Your task to perform on an android device: turn on the 24-hour format for clock Image 0: 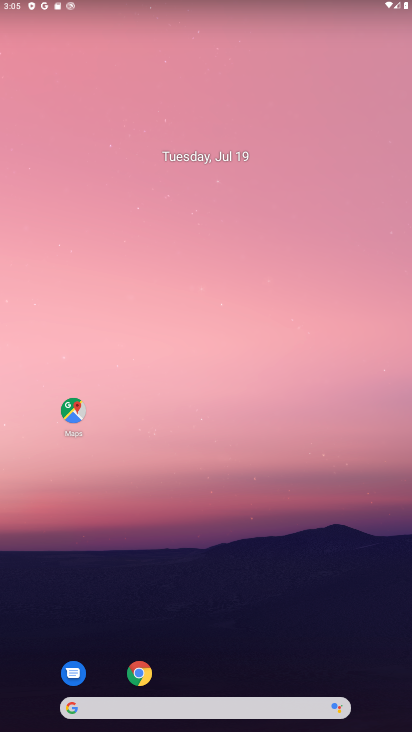
Step 0: press home button
Your task to perform on an android device: turn on the 24-hour format for clock Image 1: 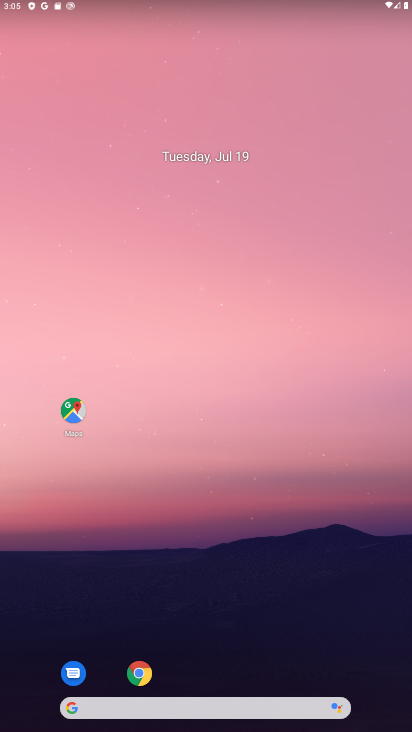
Step 1: drag from (210, 675) to (212, 2)
Your task to perform on an android device: turn on the 24-hour format for clock Image 2: 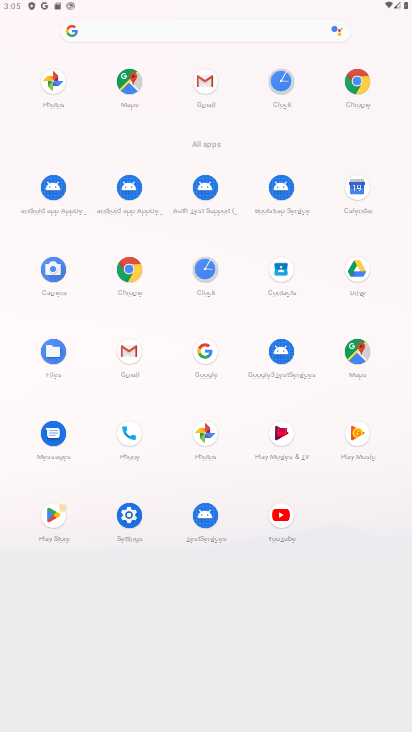
Step 2: click (284, 73)
Your task to perform on an android device: turn on the 24-hour format for clock Image 3: 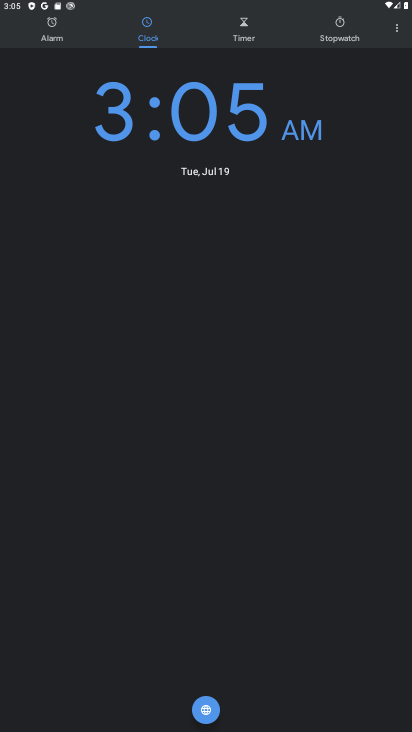
Step 3: click (390, 28)
Your task to perform on an android device: turn on the 24-hour format for clock Image 4: 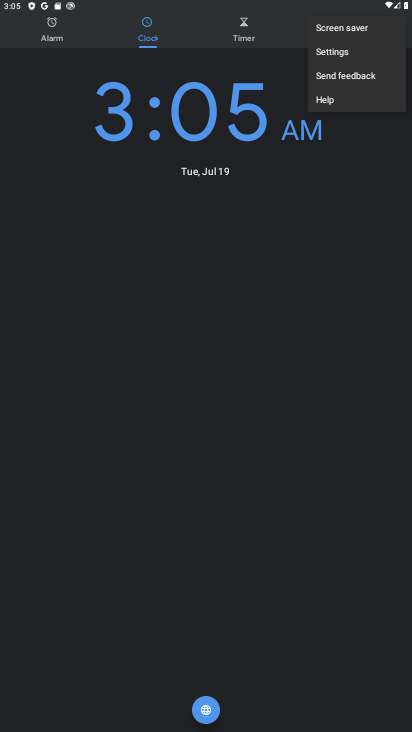
Step 4: click (348, 54)
Your task to perform on an android device: turn on the 24-hour format for clock Image 5: 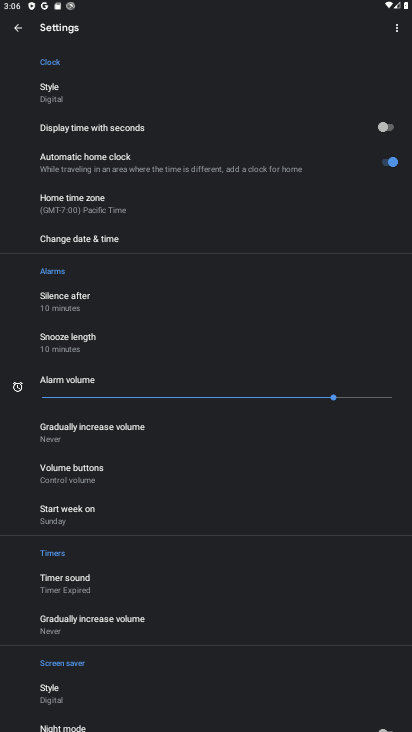
Step 5: click (113, 238)
Your task to perform on an android device: turn on the 24-hour format for clock Image 6: 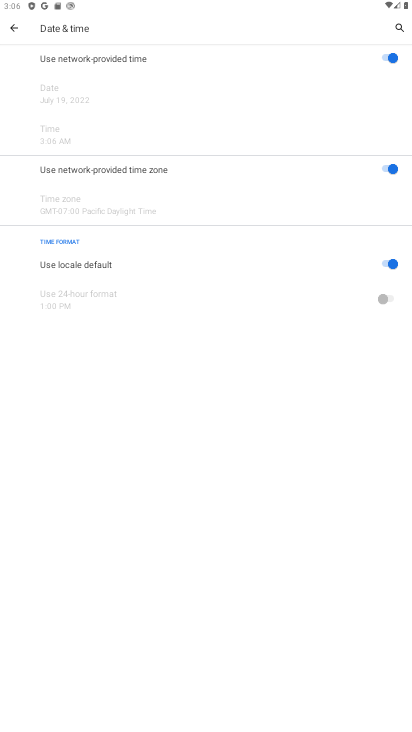
Step 6: click (385, 260)
Your task to perform on an android device: turn on the 24-hour format for clock Image 7: 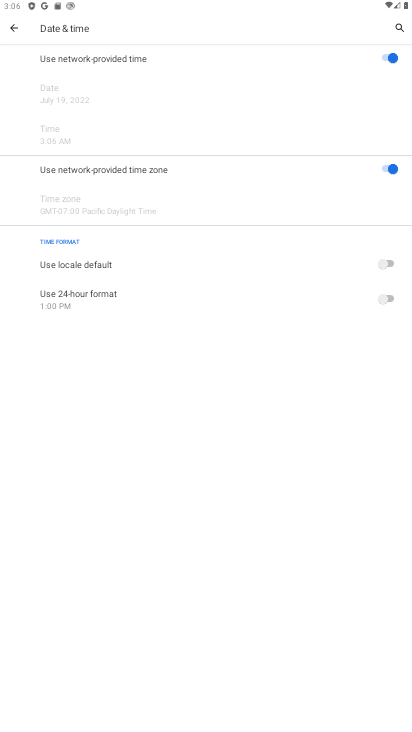
Step 7: click (393, 295)
Your task to perform on an android device: turn on the 24-hour format for clock Image 8: 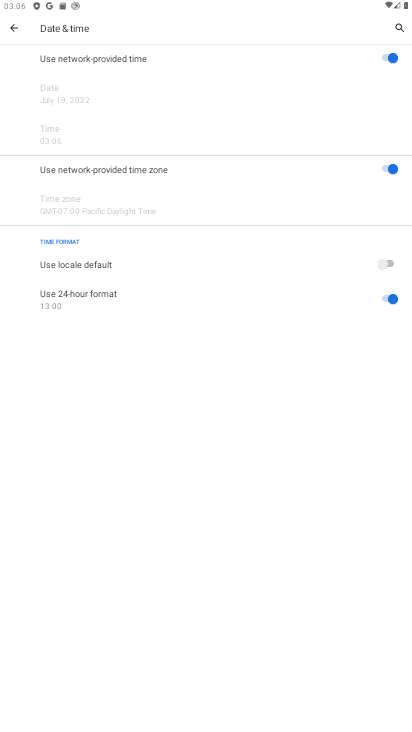
Step 8: task complete